Your task to perform on an android device: Open Google Maps and go to "Timeline" Image 0: 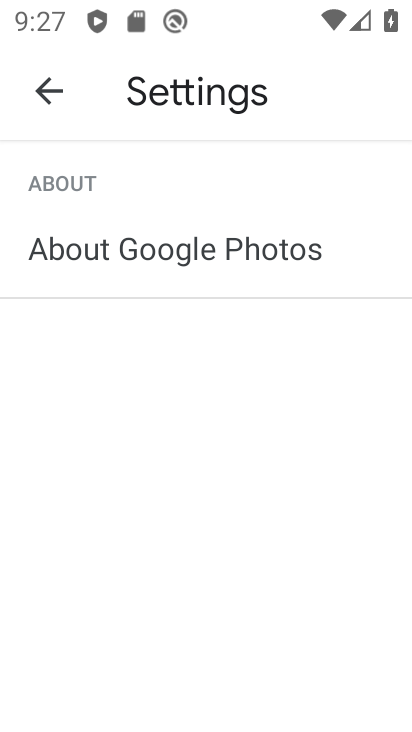
Step 0: press home button
Your task to perform on an android device: Open Google Maps and go to "Timeline" Image 1: 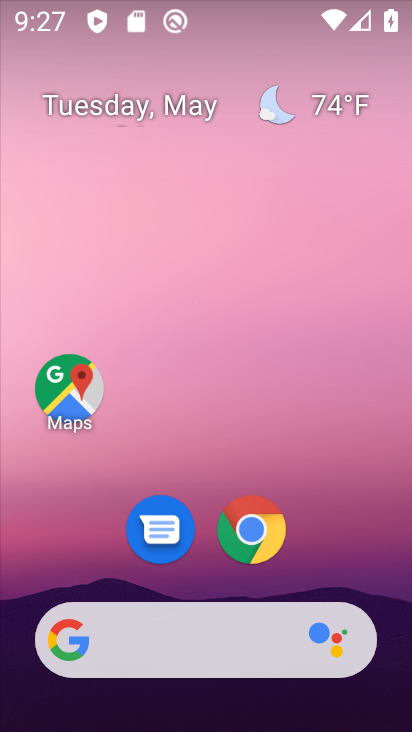
Step 1: click (64, 391)
Your task to perform on an android device: Open Google Maps and go to "Timeline" Image 2: 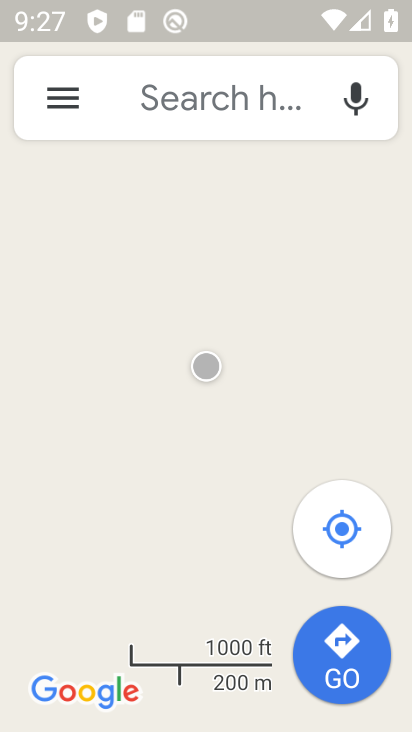
Step 2: click (62, 110)
Your task to perform on an android device: Open Google Maps and go to "Timeline" Image 3: 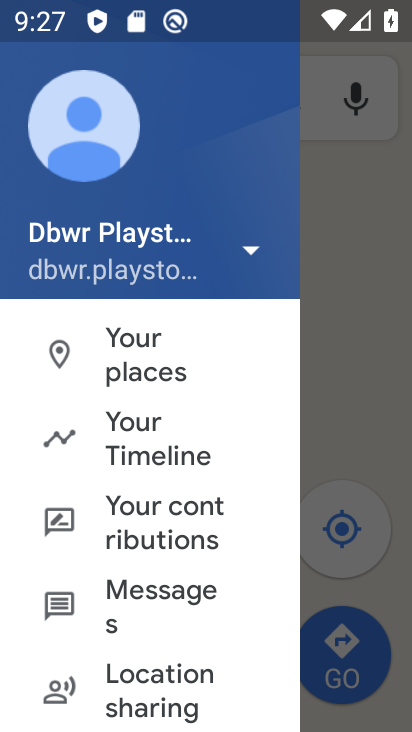
Step 3: click (155, 435)
Your task to perform on an android device: Open Google Maps and go to "Timeline" Image 4: 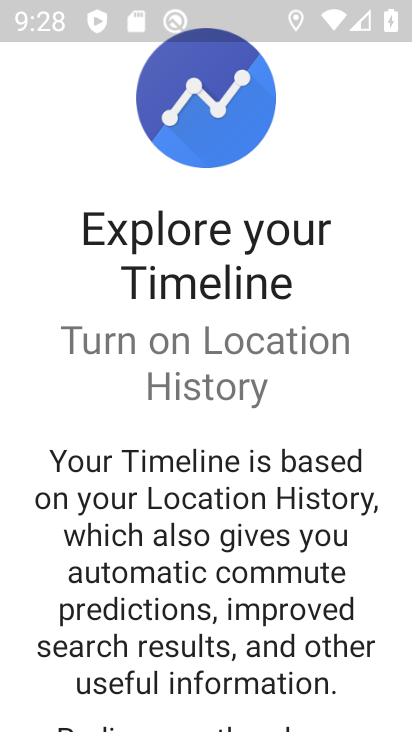
Step 4: drag from (368, 653) to (358, 306)
Your task to perform on an android device: Open Google Maps and go to "Timeline" Image 5: 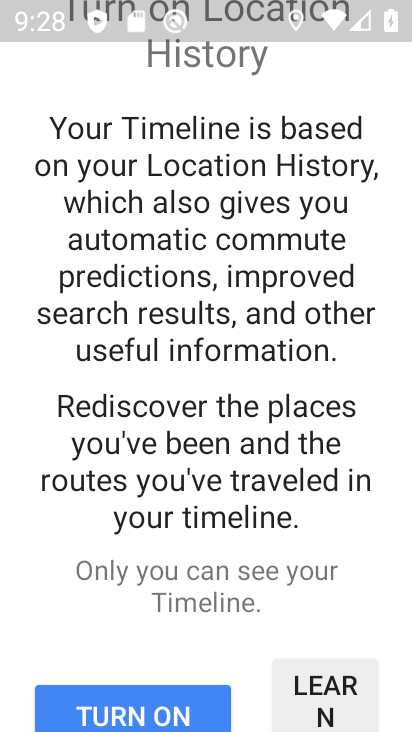
Step 5: click (157, 701)
Your task to perform on an android device: Open Google Maps and go to "Timeline" Image 6: 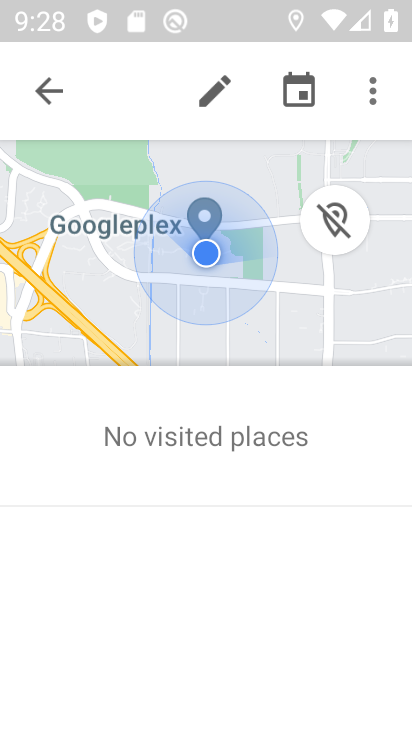
Step 6: task complete